Your task to perform on an android device: set the timer Image 0: 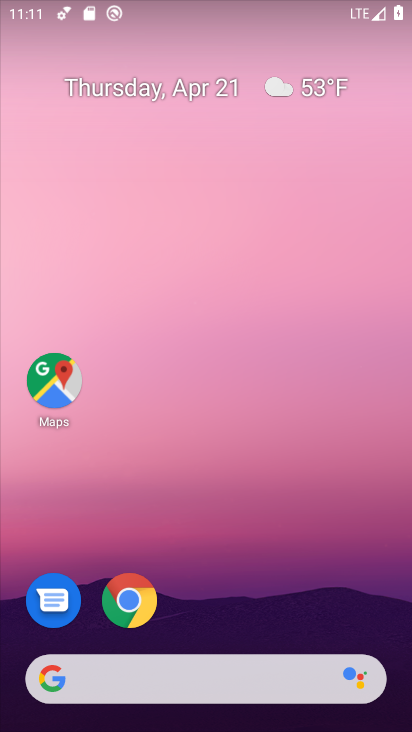
Step 0: drag from (229, 521) to (227, 27)
Your task to perform on an android device: set the timer Image 1: 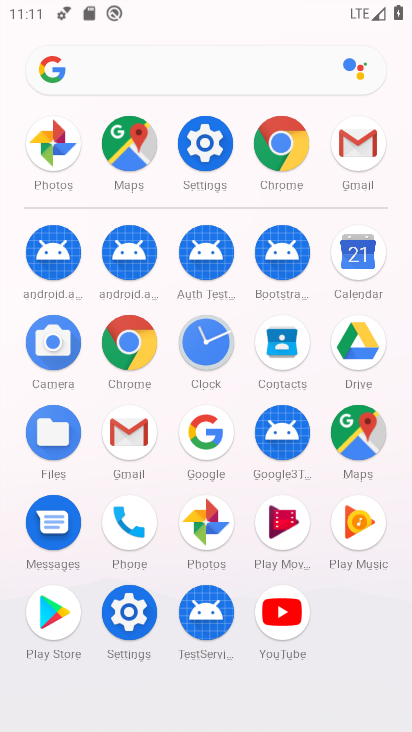
Step 1: click (205, 348)
Your task to perform on an android device: set the timer Image 2: 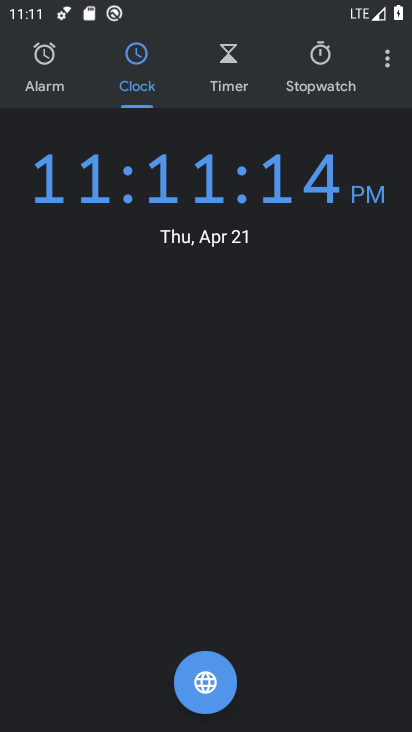
Step 2: click (229, 65)
Your task to perform on an android device: set the timer Image 3: 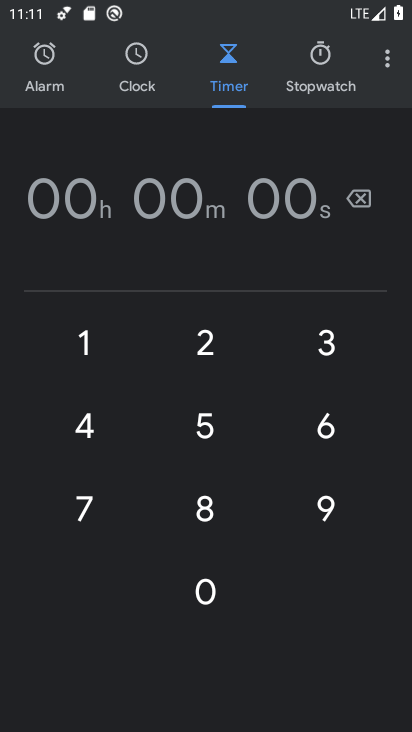
Step 3: click (90, 348)
Your task to perform on an android device: set the timer Image 4: 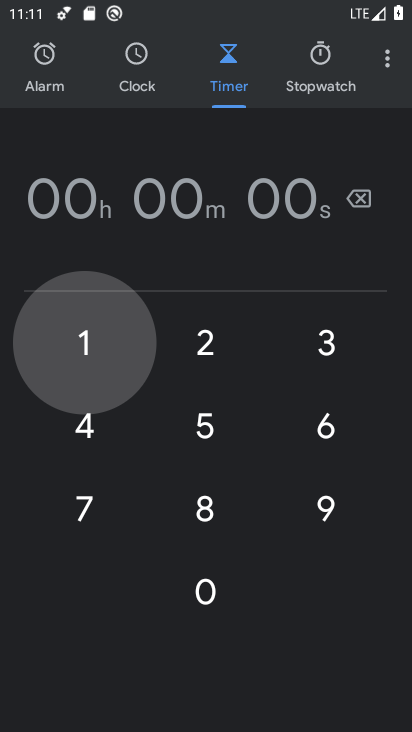
Step 4: click (90, 348)
Your task to perform on an android device: set the timer Image 5: 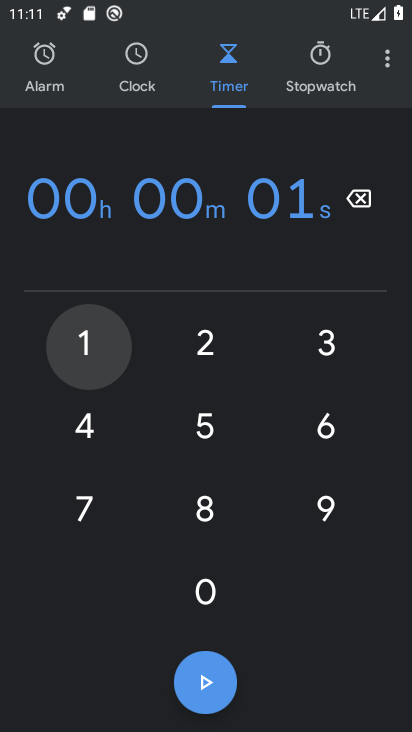
Step 5: click (90, 348)
Your task to perform on an android device: set the timer Image 6: 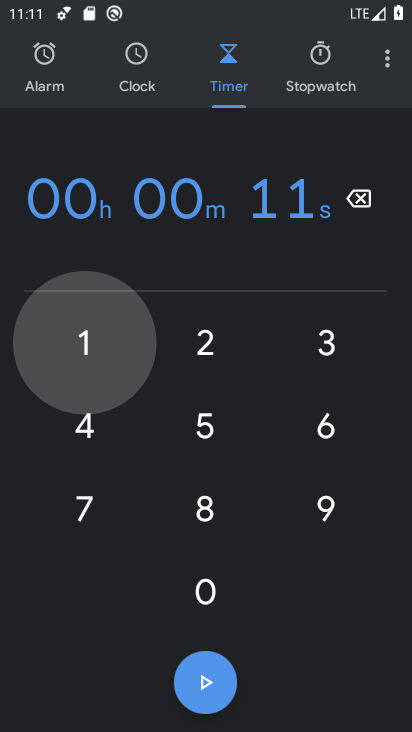
Step 6: click (90, 348)
Your task to perform on an android device: set the timer Image 7: 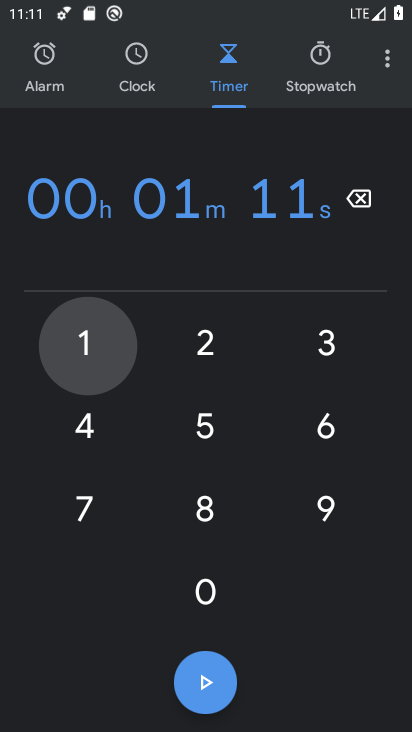
Step 7: click (90, 348)
Your task to perform on an android device: set the timer Image 8: 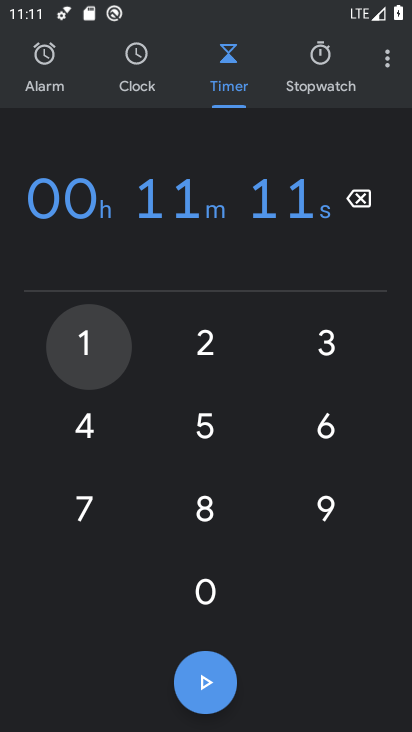
Step 8: click (91, 349)
Your task to perform on an android device: set the timer Image 9: 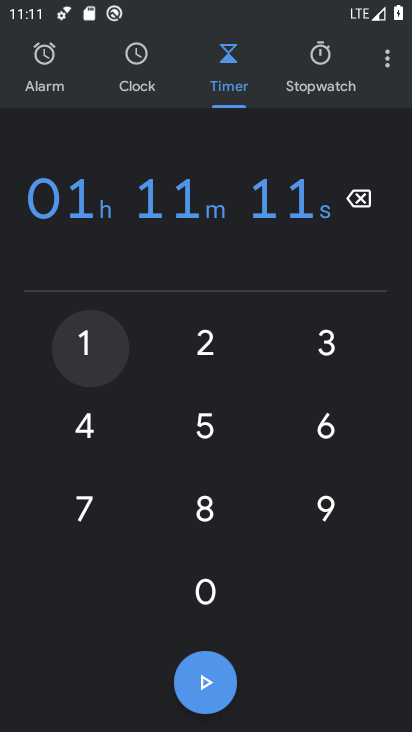
Step 9: click (91, 349)
Your task to perform on an android device: set the timer Image 10: 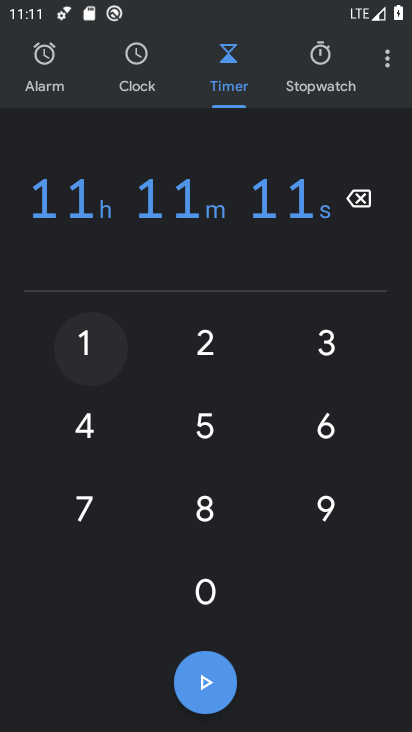
Step 10: click (91, 349)
Your task to perform on an android device: set the timer Image 11: 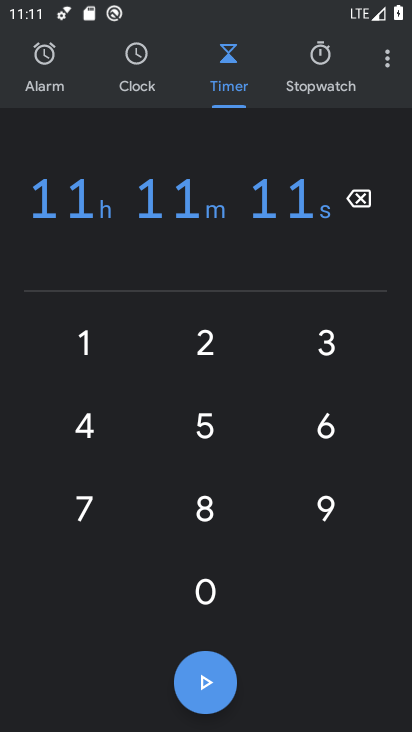
Step 11: click (198, 690)
Your task to perform on an android device: set the timer Image 12: 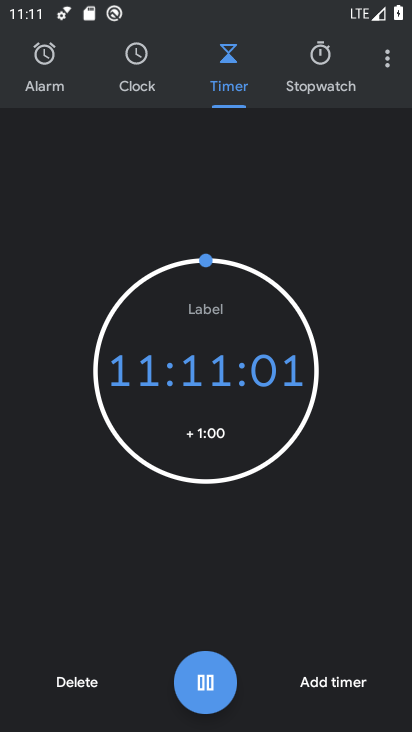
Step 12: task complete